Your task to perform on an android device: Open Reddit.com Image 0: 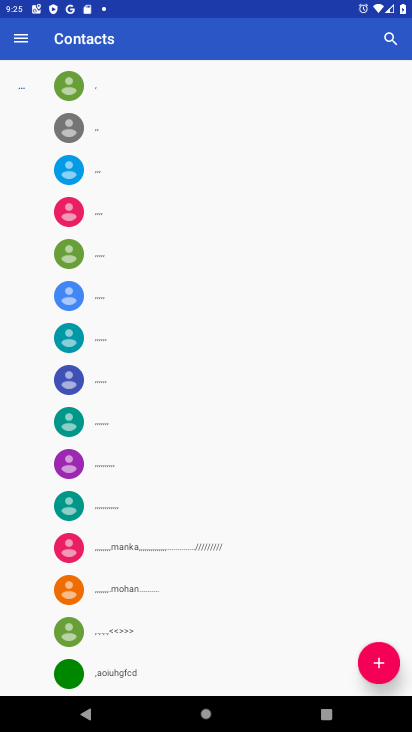
Step 0: press home button
Your task to perform on an android device: Open Reddit.com Image 1: 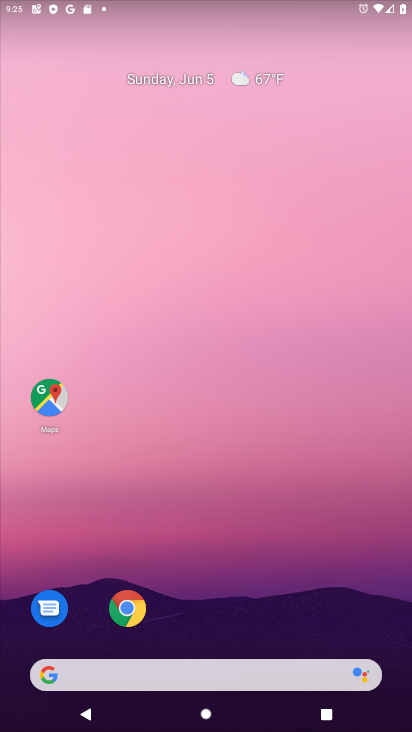
Step 1: click (200, 675)
Your task to perform on an android device: Open Reddit.com Image 2: 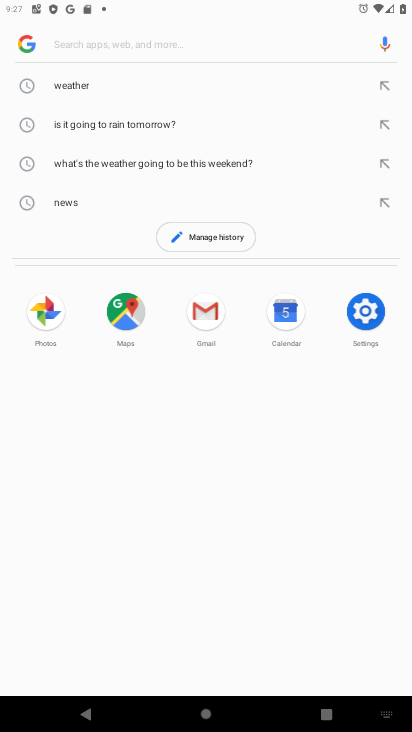
Step 2: type "Reddit.com"
Your task to perform on an android device: Open Reddit.com Image 3: 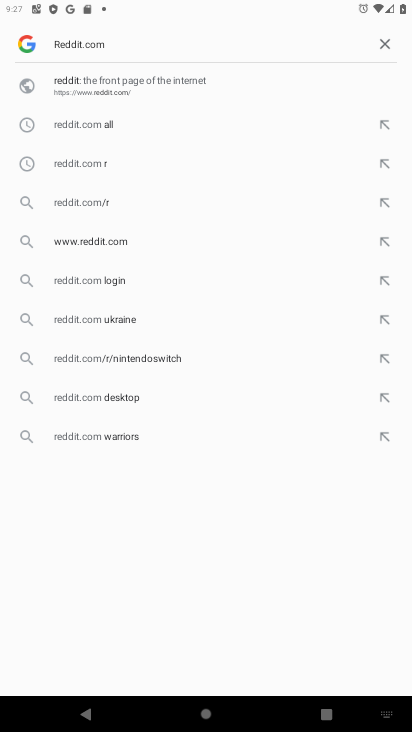
Step 3: click (380, 46)
Your task to perform on an android device: Open Reddit.com Image 4: 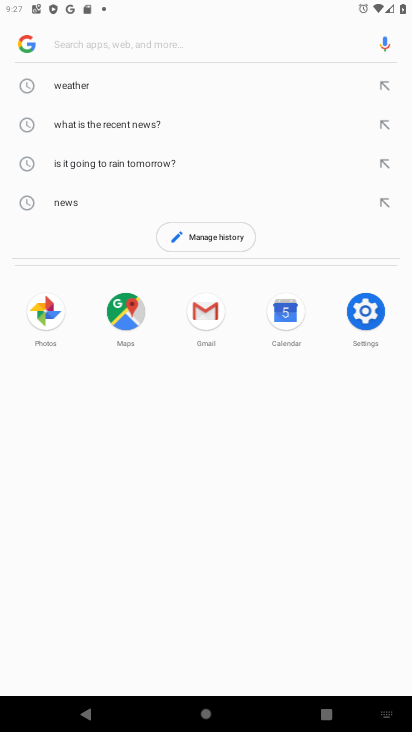
Step 4: click (120, 32)
Your task to perform on an android device: Open Reddit.com Image 5: 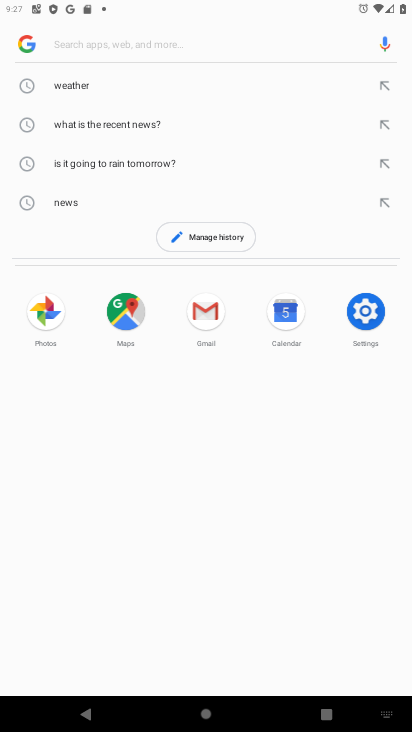
Step 5: type "Reddit.com"
Your task to perform on an android device: Open Reddit.com Image 6: 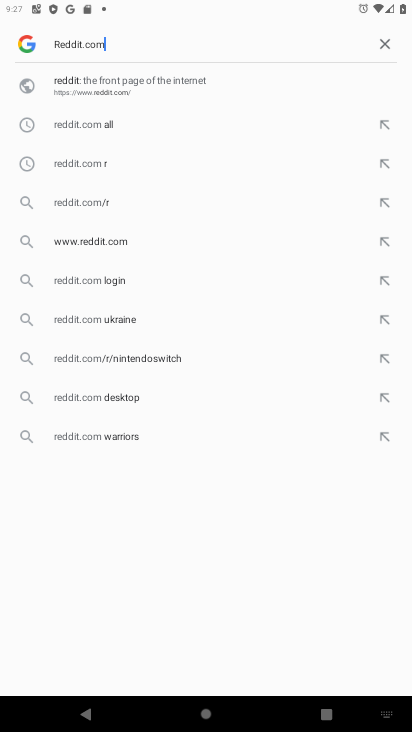
Step 6: type ""
Your task to perform on an android device: Open Reddit.com Image 7: 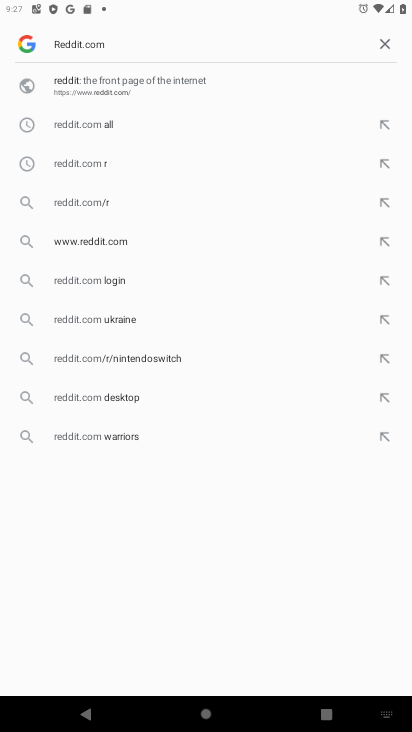
Step 7: click (74, 248)
Your task to perform on an android device: Open Reddit.com Image 8: 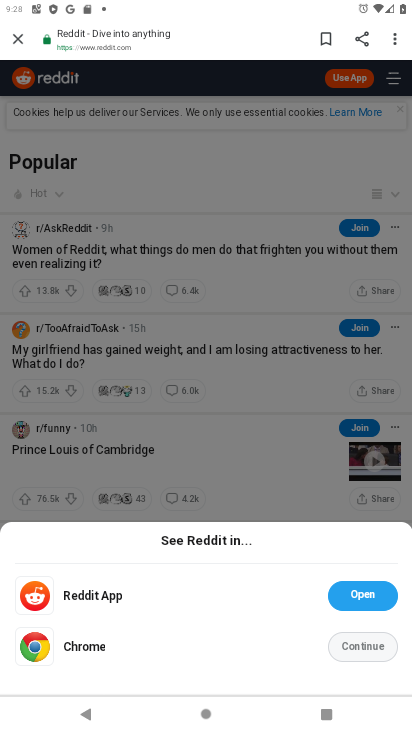
Step 8: click (71, 607)
Your task to perform on an android device: Open Reddit.com Image 9: 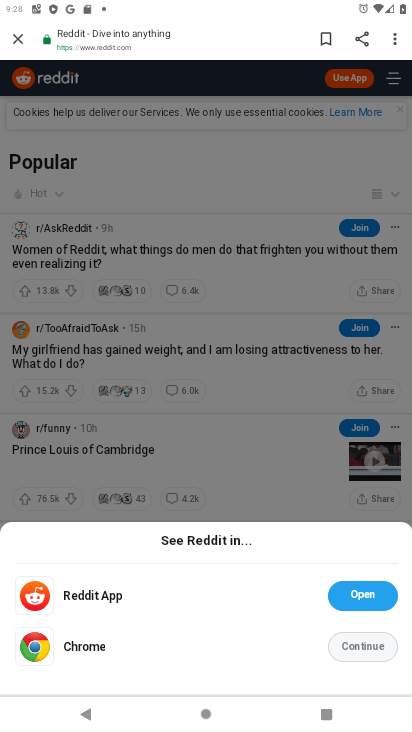
Step 9: click (45, 599)
Your task to perform on an android device: Open Reddit.com Image 10: 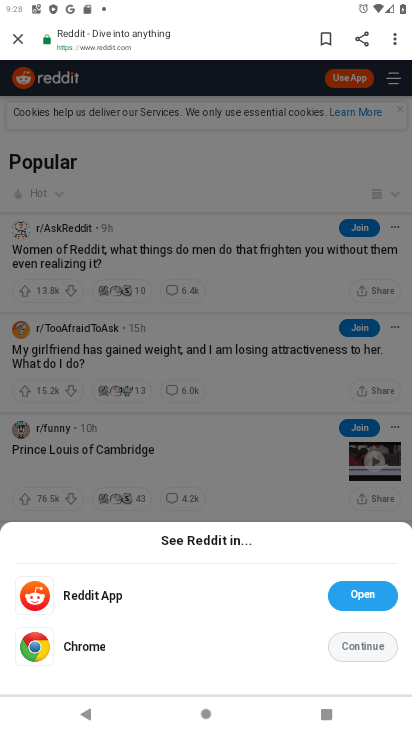
Step 10: task complete